Your task to perform on an android device: toggle notifications settings in the gmail app Image 0: 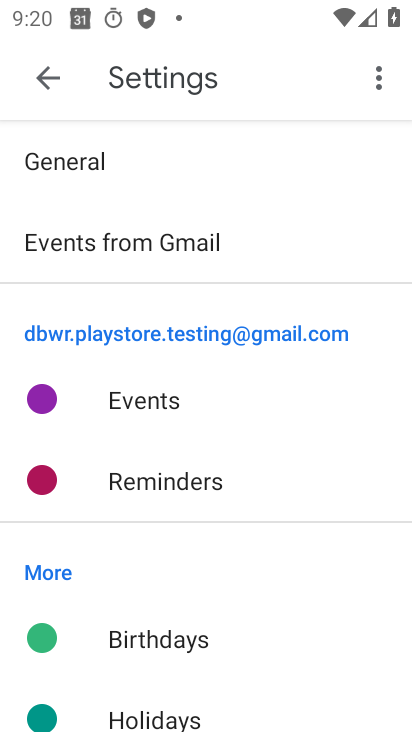
Step 0: press back button
Your task to perform on an android device: toggle notifications settings in the gmail app Image 1: 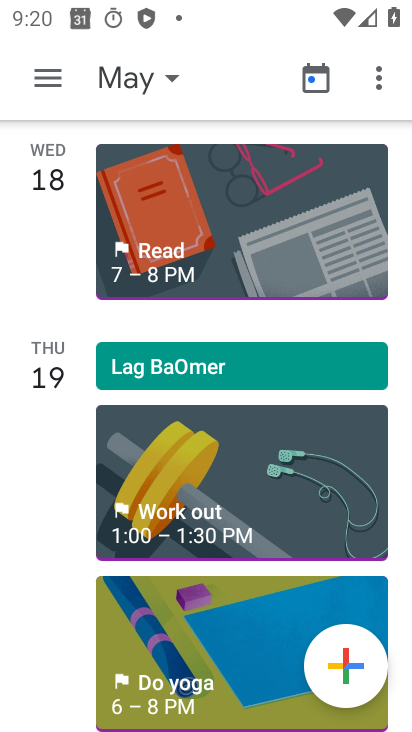
Step 1: drag from (296, 664) to (130, 3)
Your task to perform on an android device: toggle notifications settings in the gmail app Image 2: 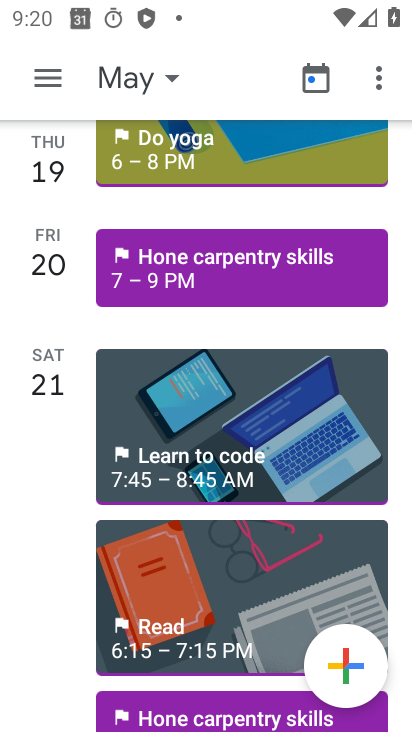
Step 2: press home button
Your task to perform on an android device: toggle notifications settings in the gmail app Image 3: 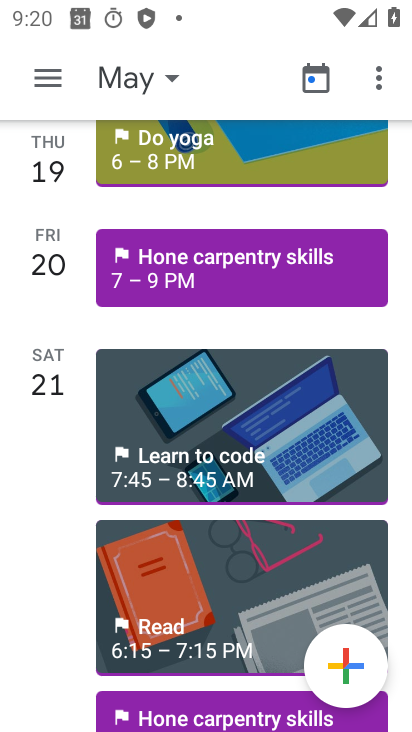
Step 3: press home button
Your task to perform on an android device: toggle notifications settings in the gmail app Image 4: 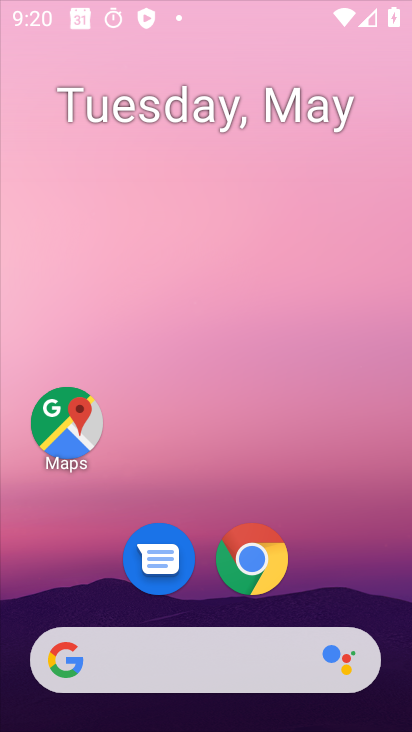
Step 4: press home button
Your task to perform on an android device: toggle notifications settings in the gmail app Image 5: 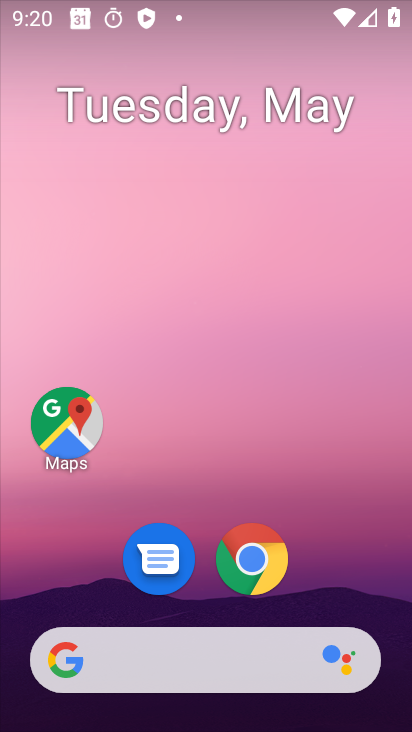
Step 5: drag from (322, 729) to (109, 145)
Your task to perform on an android device: toggle notifications settings in the gmail app Image 6: 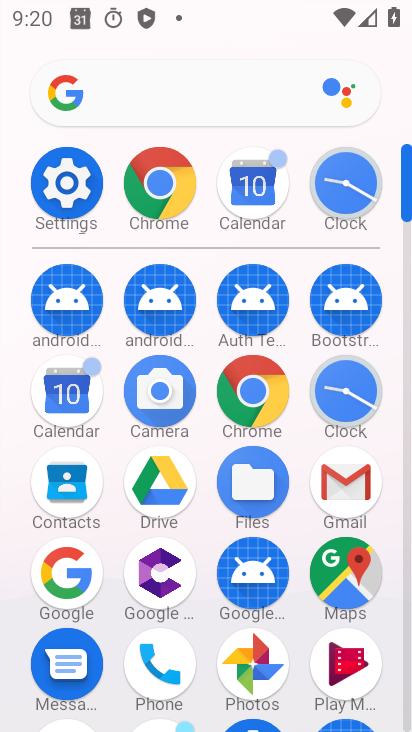
Step 6: click (357, 499)
Your task to perform on an android device: toggle notifications settings in the gmail app Image 7: 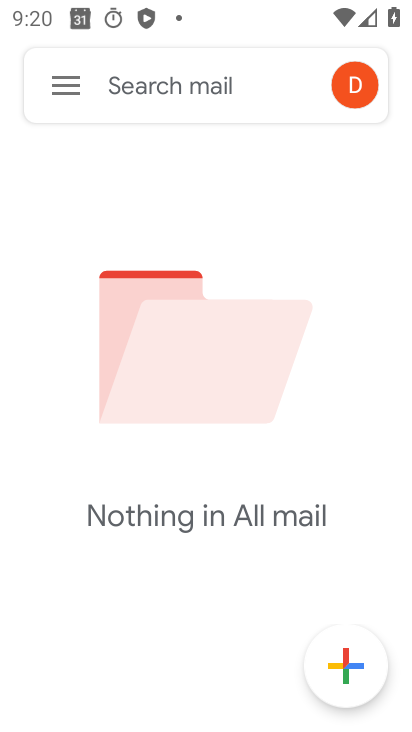
Step 7: click (344, 479)
Your task to perform on an android device: toggle notifications settings in the gmail app Image 8: 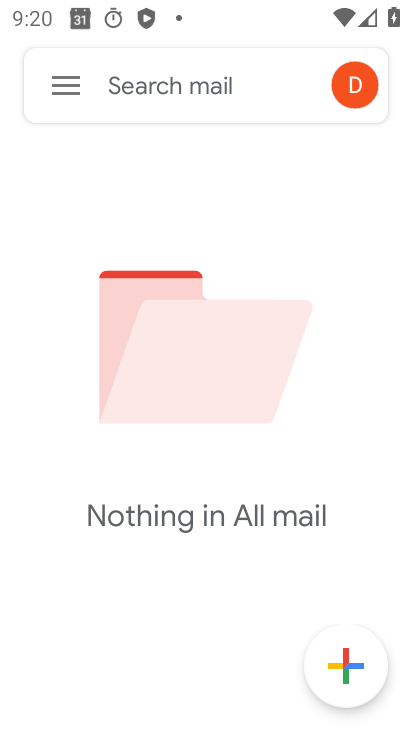
Step 8: click (50, 78)
Your task to perform on an android device: toggle notifications settings in the gmail app Image 9: 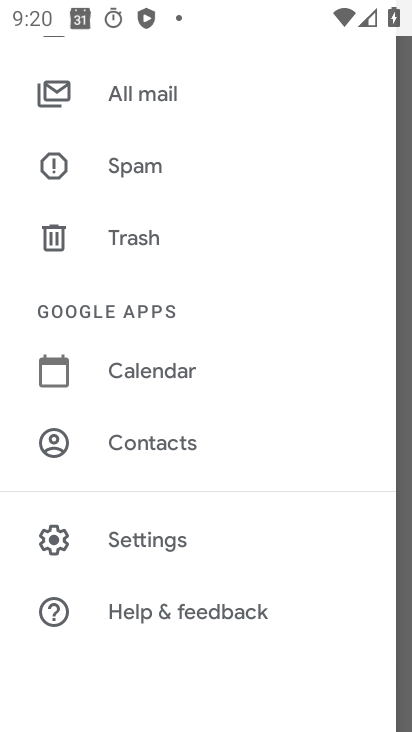
Step 9: click (152, 532)
Your task to perform on an android device: toggle notifications settings in the gmail app Image 10: 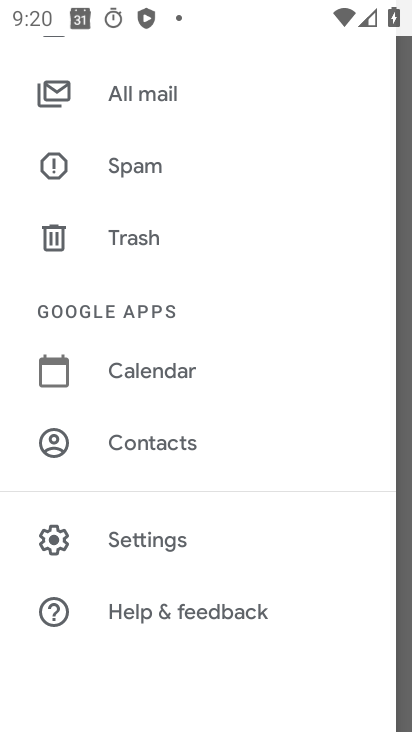
Step 10: click (152, 532)
Your task to perform on an android device: toggle notifications settings in the gmail app Image 11: 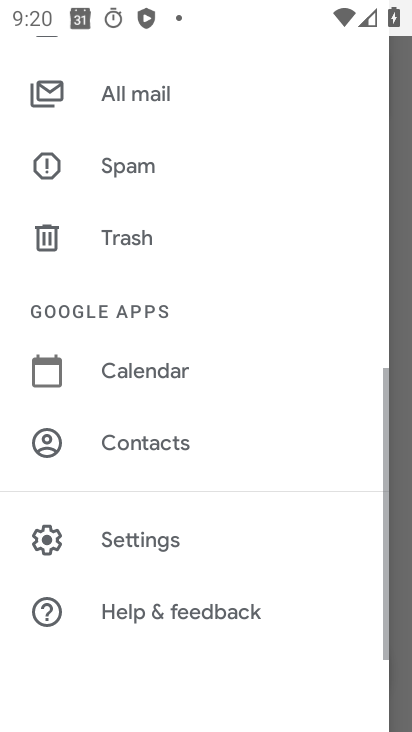
Step 11: click (132, 530)
Your task to perform on an android device: toggle notifications settings in the gmail app Image 12: 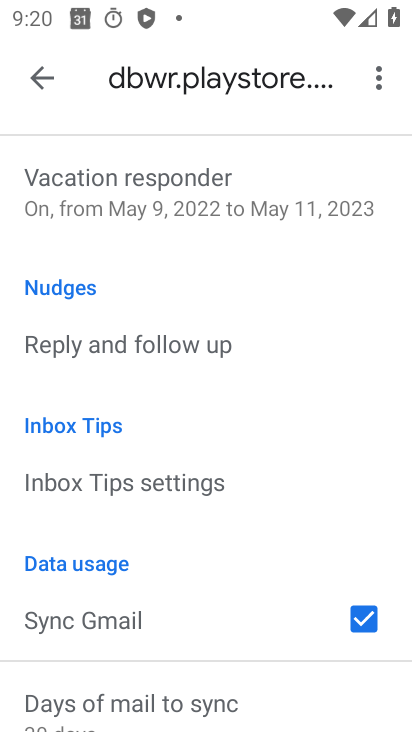
Step 12: drag from (102, 312) to (153, 557)
Your task to perform on an android device: toggle notifications settings in the gmail app Image 13: 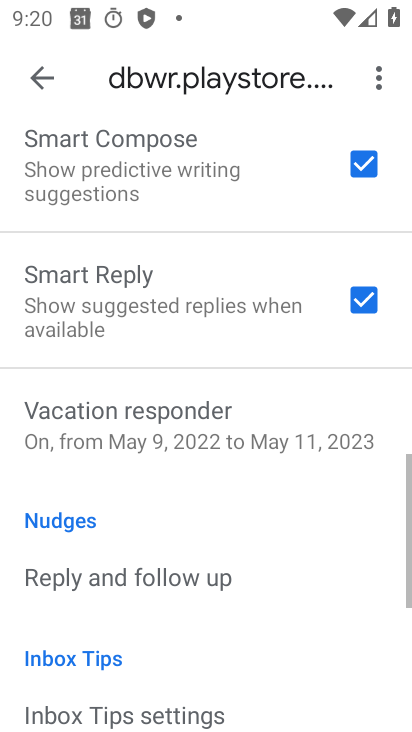
Step 13: drag from (143, 266) to (162, 386)
Your task to perform on an android device: toggle notifications settings in the gmail app Image 14: 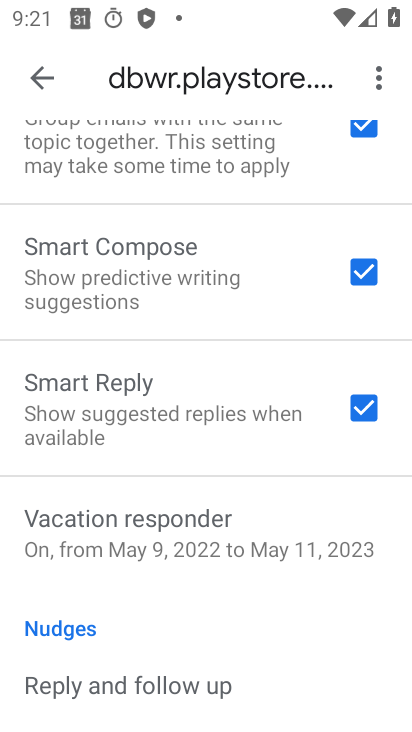
Step 14: drag from (113, 371) to (154, 532)
Your task to perform on an android device: toggle notifications settings in the gmail app Image 15: 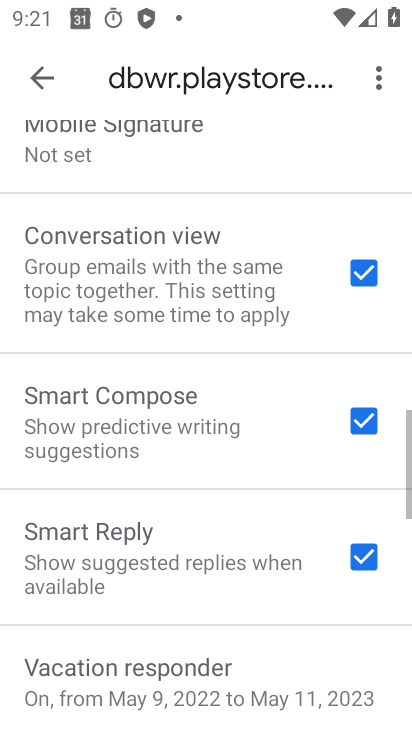
Step 15: drag from (115, 361) to (147, 599)
Your task to perform on an android device: toggle notifications settings in the gmail app Image 16: 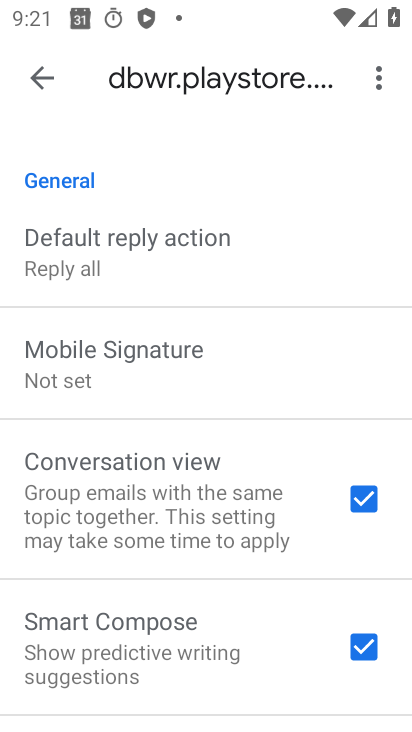
Step 16: drag from (80, 255) to (129, 531)
Your task to perform on an android device: toggle notifications settings in the gmail app Image 17: 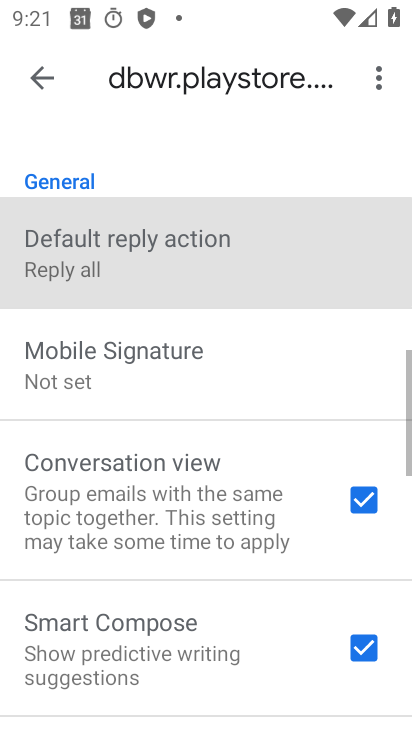
Step 17: drag from (158, 307) to (195, 574)
Your task to perform on an android device: toggle notifications settings in the gmail app Image 18: 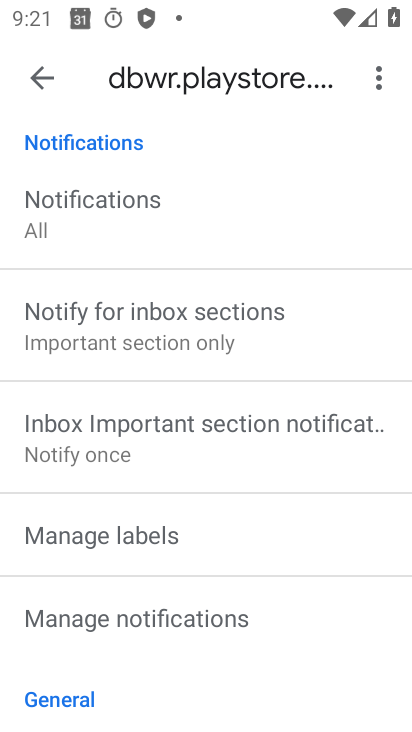
Step 18: click (102, 213)
Your task to perform on an android device: toggle notifications settings in the gmail app Image 19: 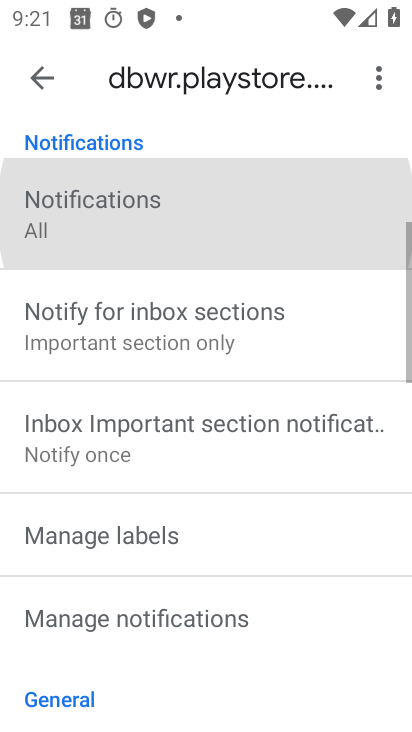
Step 19: click (102, 213)
Your task to perform on an android device: toggle notifications settings in the gmail app Image 20: 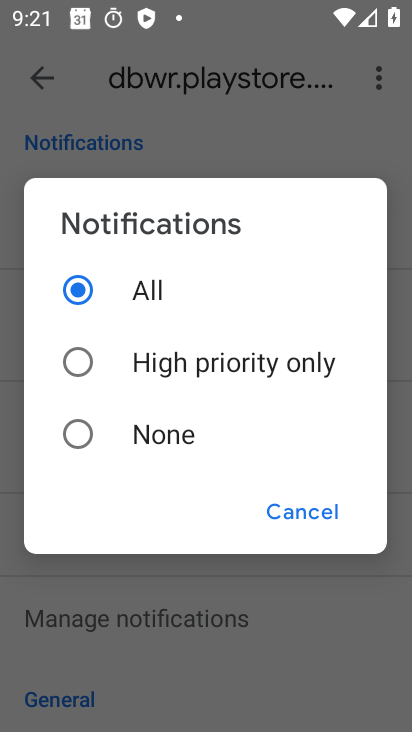
Step 20: click (69, 356)
Your task to perform on an android device: toggle notifications settings in the gmail app Image 21: 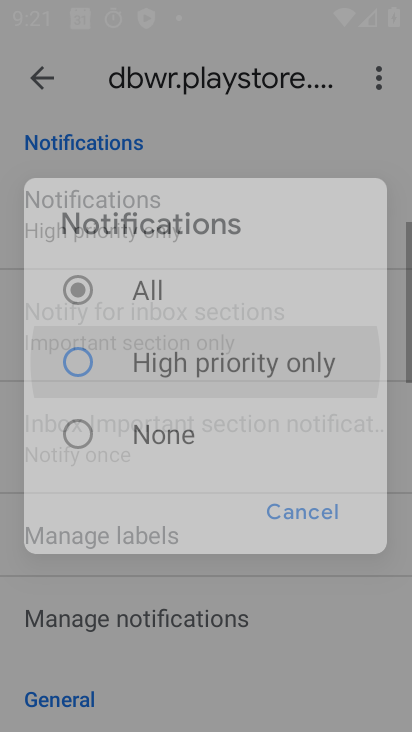
Step 21: click (69, 356)
Your task to perform on an android device: toggle notifications settings in the gmail app Image 22: 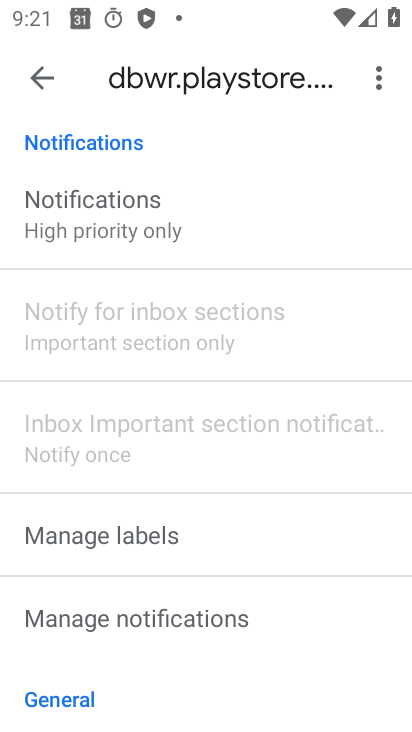
Step 22: task complete